Your task to perform on an android device: Go to battery settings Image 0: 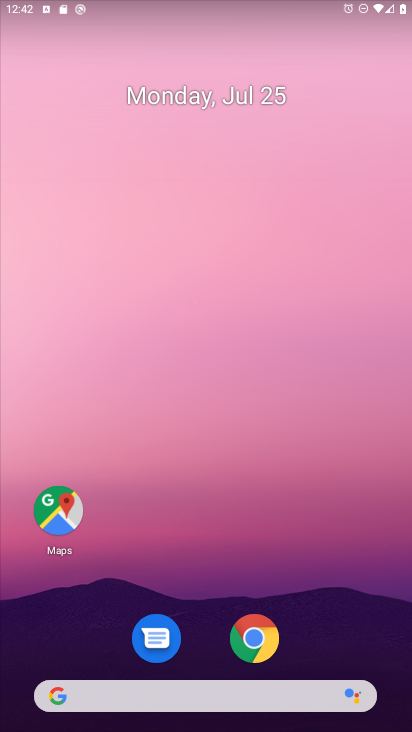
Step 0: drag from (218, 623) to (210, 80)
Your task to perform on an android device: Go to battery settings Image 1: 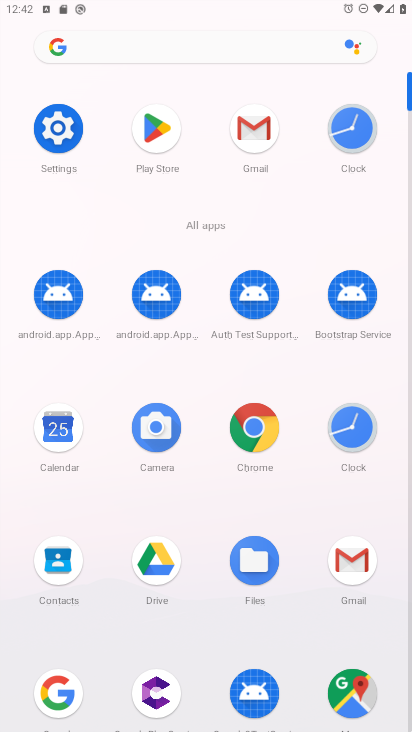
Step 1: click (48, 121)
Your task to perform on an android device: Go to battery settings Image 2: 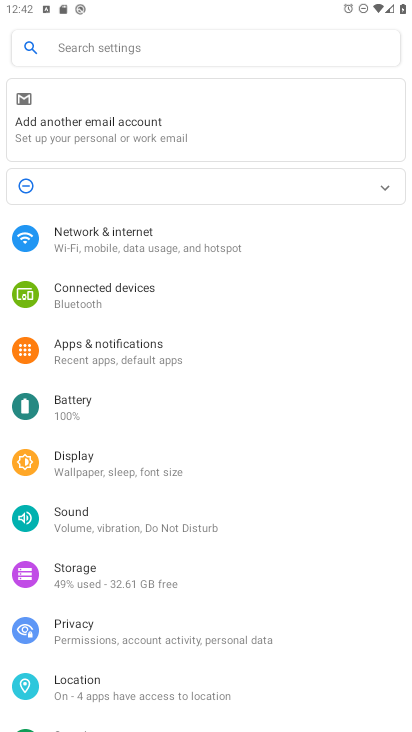
Step 2: click (100, 394)
Your task to perform on an android device: Go to battery settings Image 3: 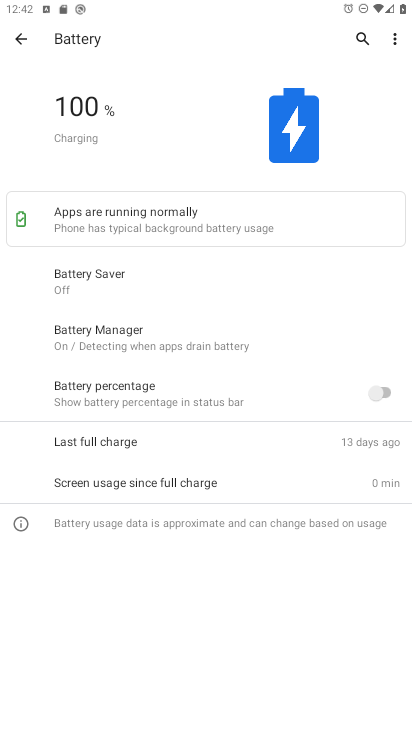
Step 3: click (405, 28)
Your task to perform on an android device: Go to battery settings Image 4: 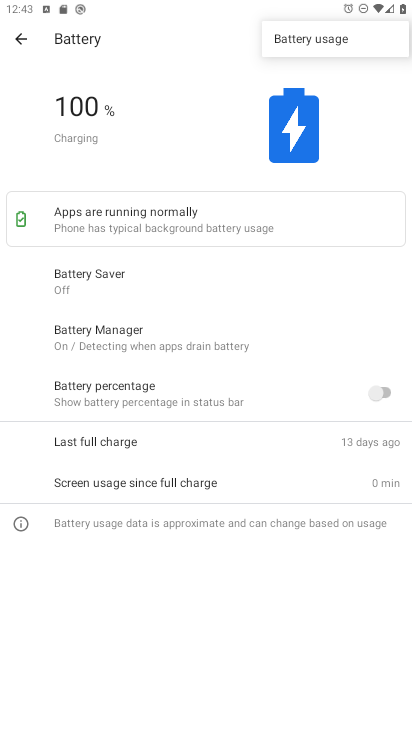
Step 4: task complete